Your task to perform on an android device: Open the calendar app, open the side menu, and click the "Day" option Image 0: 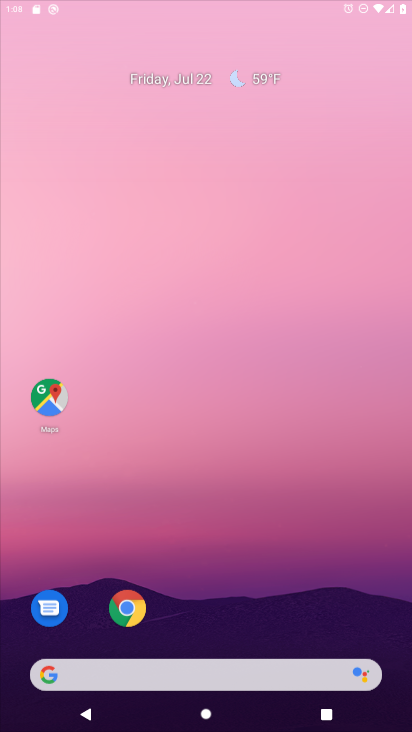
Step 0: drag from (386, 646) to (149, 13)
Your task to perform on an android device: Open the calendar app, open the side menu, and click the "Day" option Image 1: 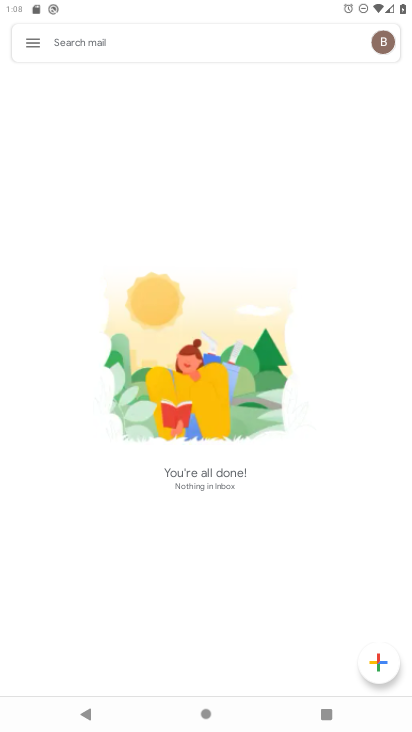
Step 1: press home button
Your task to perform on an android device: Open the calendar app, open the side menu, and click the "Day" option Image 2: 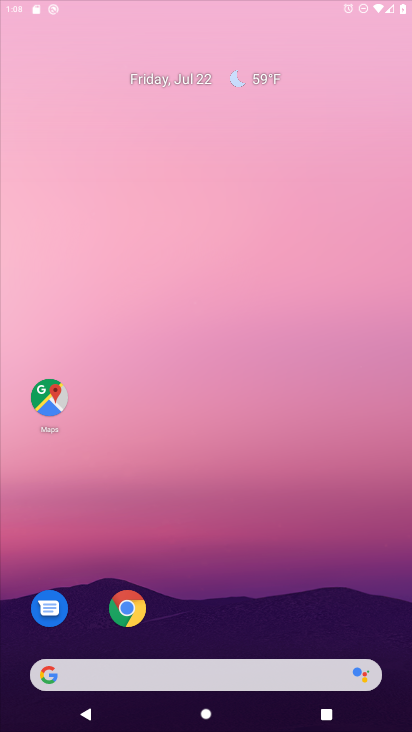
Step 2: drag from (396, 664) to (66, 9)
Your task to perform on an android device: Open the calendar app, open the side menu, and click the "Day" option Image 3: 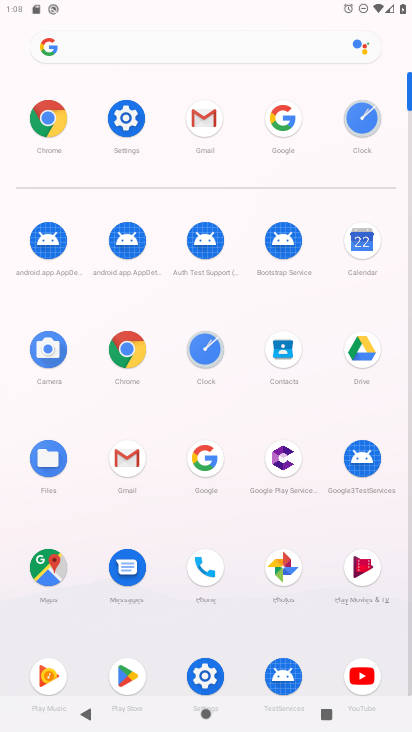
Step 3: click (353, 256)
Your task to perform on an android device: Open the calendar app, open the side menu, and click the "Day" option Image 4: 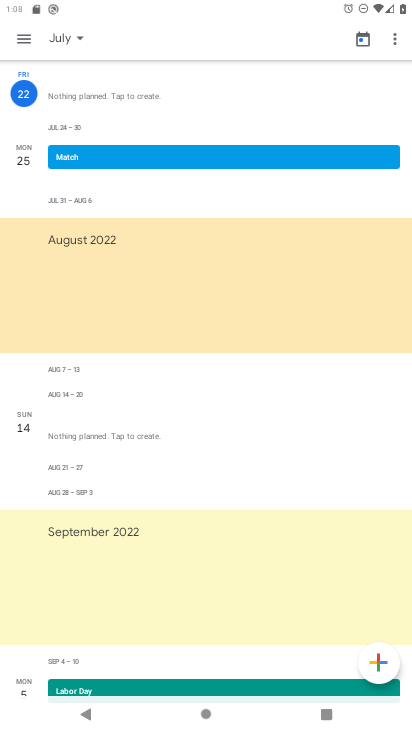
Step 4: click (22, 38)
Your task to perform on an android device: Open the calendar app, open the side menu, and click the "Day" option Image 5: 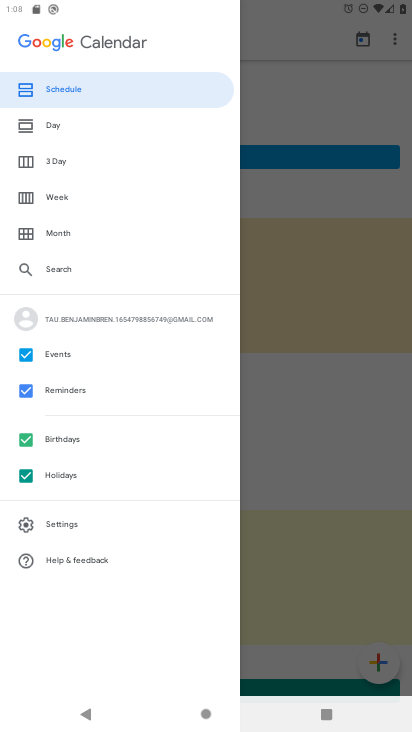
Step 5: click (51, 124)
Your task to perform on an android device: Open the calendar app, open the side menu, and click the "Day" option Image 6: 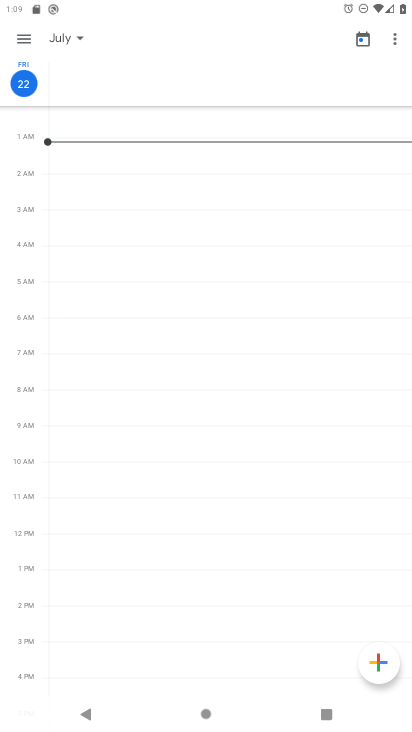
Step 6: task complete